Your task to perform on an android device: turn on the 12-hour format for clock Image 0: 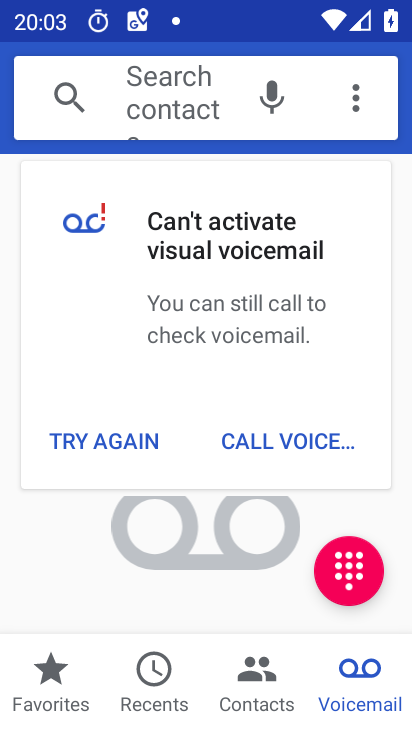
Step 0: press home button
Your task to perform on an android device: turn on the 12-hour format for clock Image 1: 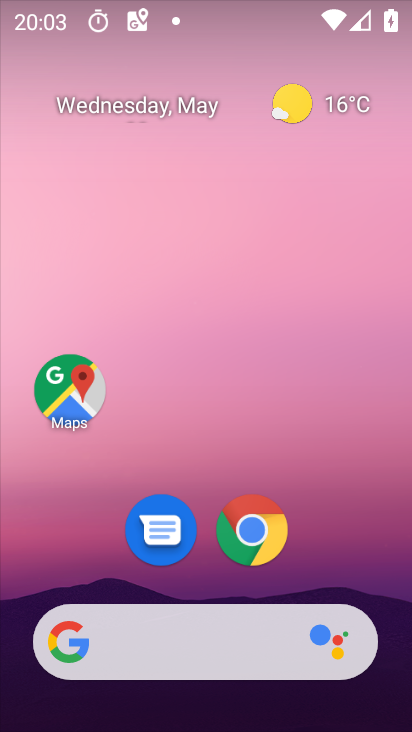
Step 1: drag from (221, 560) to (270, 220)
Your task to perform on an android device: turn on the 12-hour format for clock Image 2: 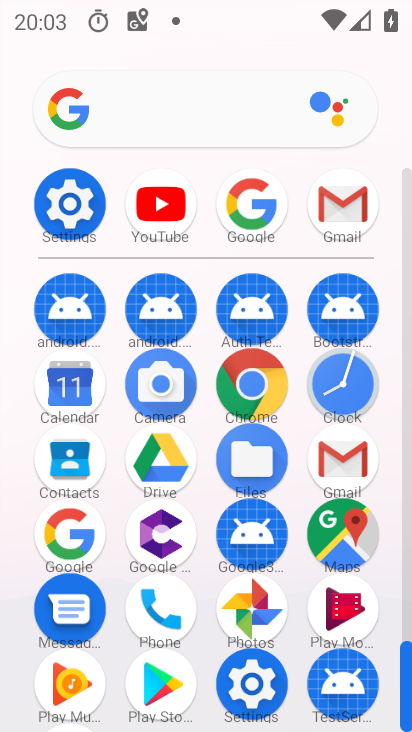
Step 2: click (345, 389)
Your task to perform on an android device: turn on the 12-hour format for clock Image 3: 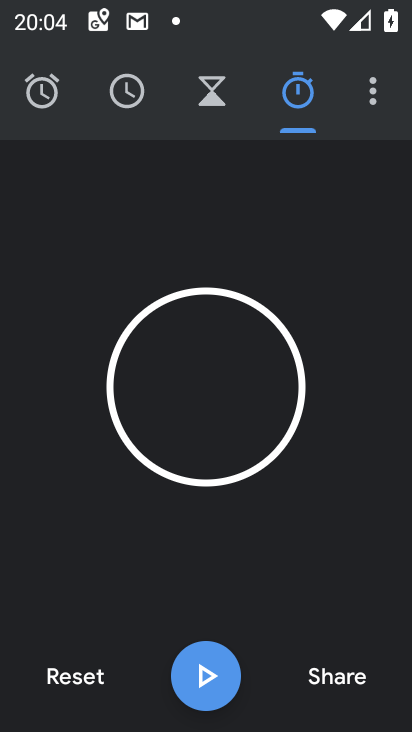
Step 3: click (376, 91)
Your task to perform on an android device: turn on the 12-hour format for clock Image 4: 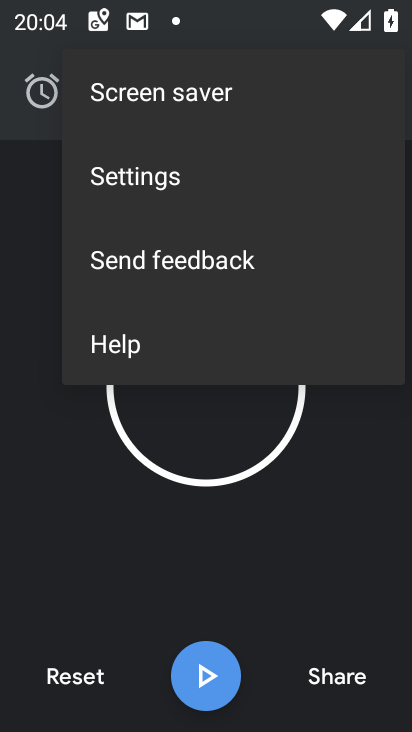
Step 4: click (226, 184)
Your task to perform on an android device: turn on the 12-hour format for clock Image 5: 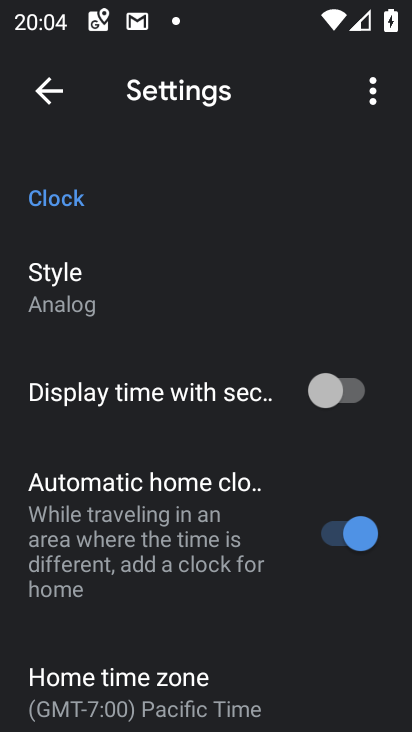
Step 5: drag from (138, 532) to (128, 201)
Your task to perform on an android device: turn on the 12-hour format for clock Image 6: 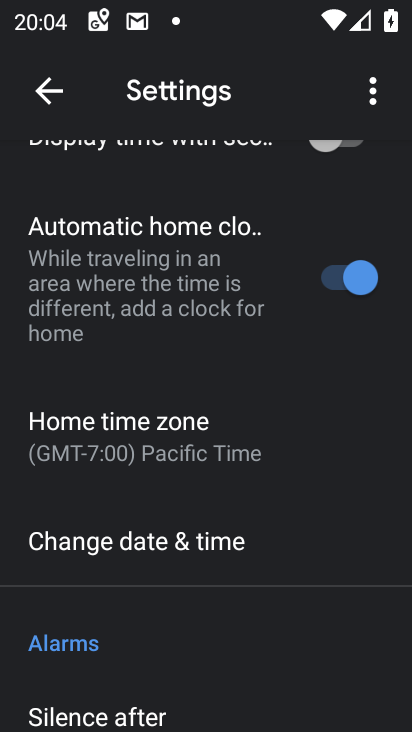
Step 6: drag from (199, 514) to (199, 158)
Your task to perform on an android device: turn on the 12-hour format for clock Image 7: 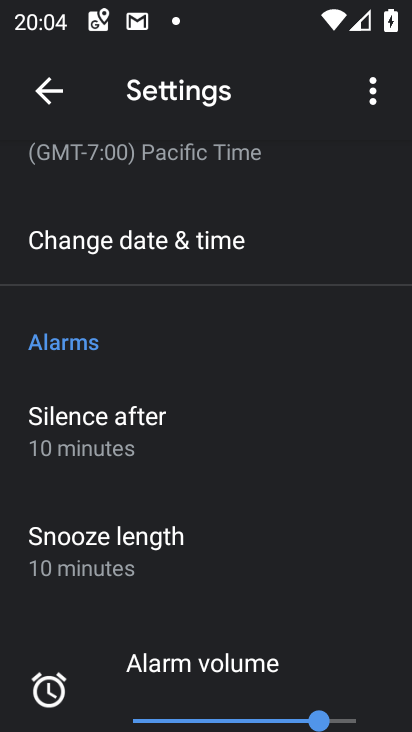
Step 7: click (155, 233)
Your task to perform on an android device: turn on the 12-hour format for clock Image 8: 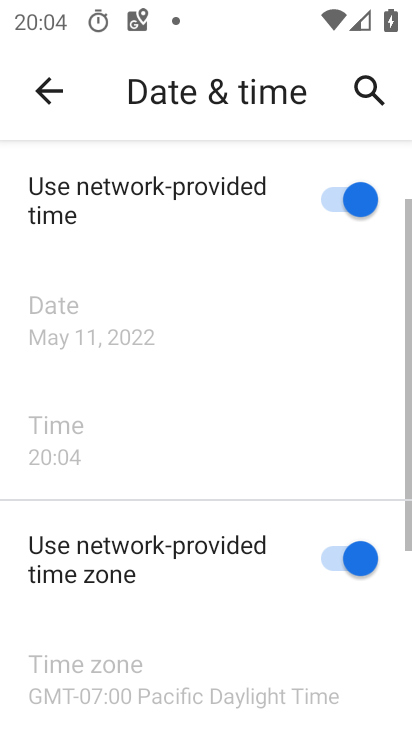
Step 8: drag from (225, 464) to (253, 51)
Your task to perform on an android device: turn on the 12-hour format for clock Image 9: 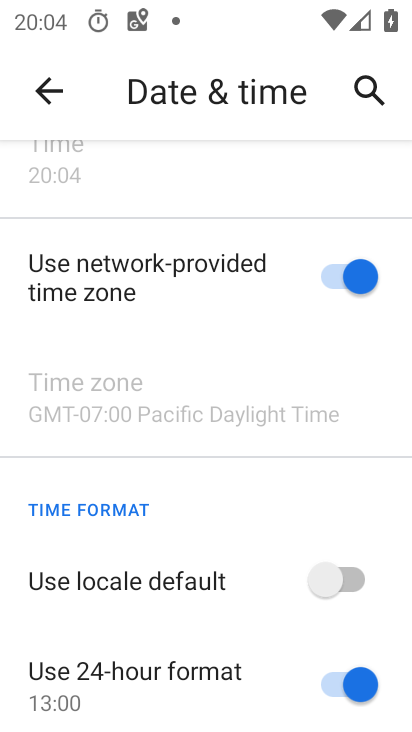
Step 9: click (332, 672)
Your task to perform on an android device: turn on the 12-hour format for clock Image 10: 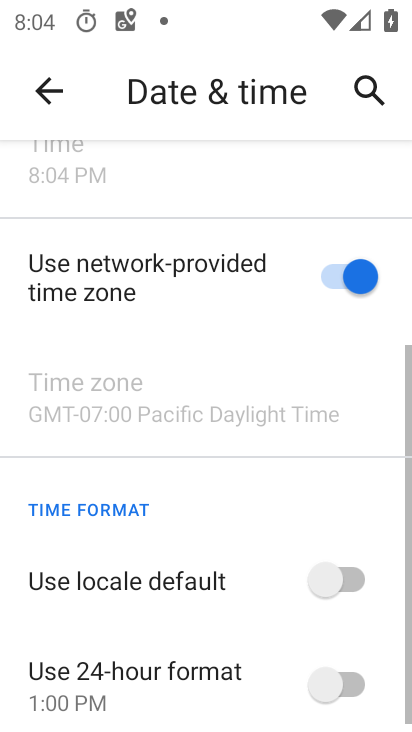
Step 10: click (345, 578)
Your task to perform on an android device: turn on the 12-hour format for clock Image 11: 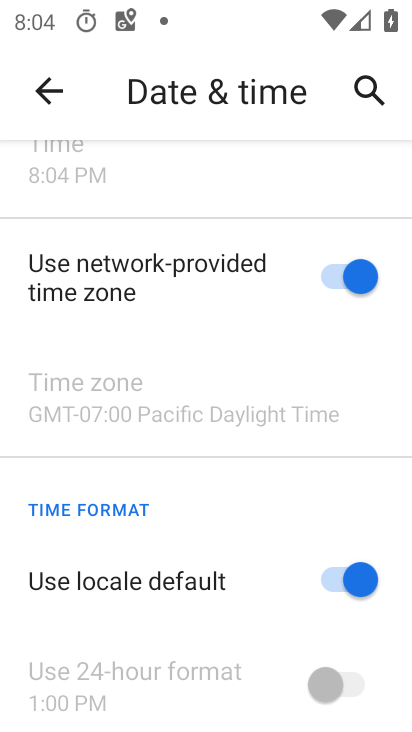
Step 11: task complete